Your task to perform on an android device: set an alarm Image 0: 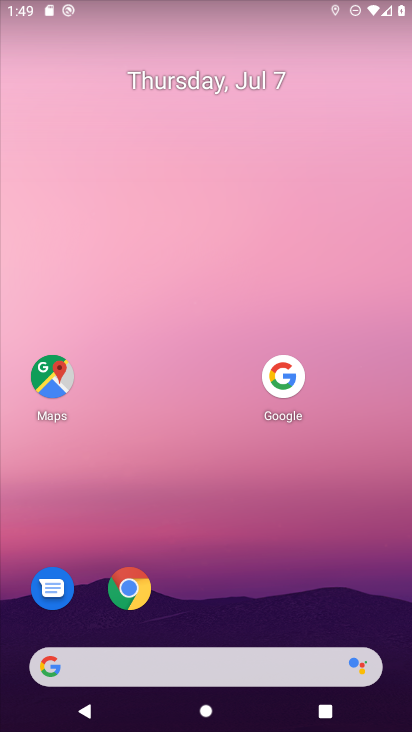
Step 0: drag from (196, 659) to (202, 185)
Your task to perform on an android device: set an alarm Image 1: 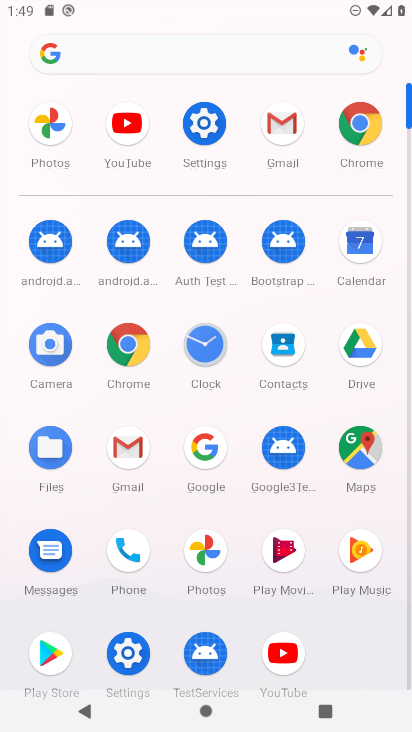
Step 1: click (206, 349)
Your task to perform on an android device: set an alarm Image 2: 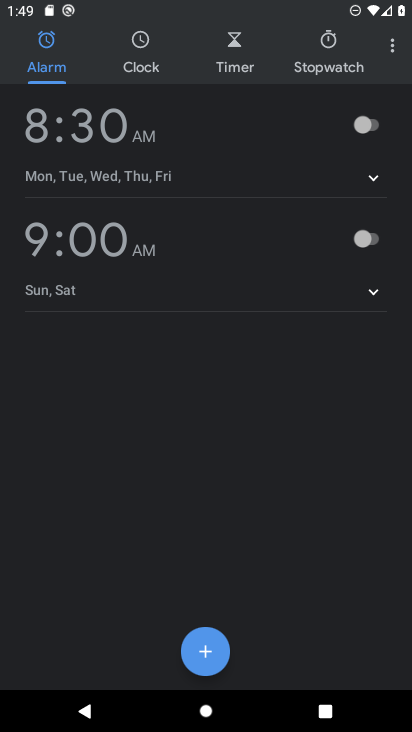
Step 2: click (374, 126)
Your task to perform on an android device: set an alarm Image 3: 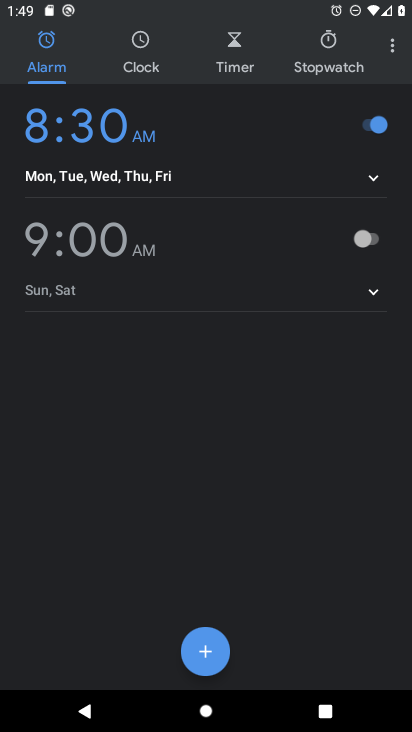
Step 3: task complete